Your task to perform on an android device: toggle notifications settings in the gmail app Image 0: 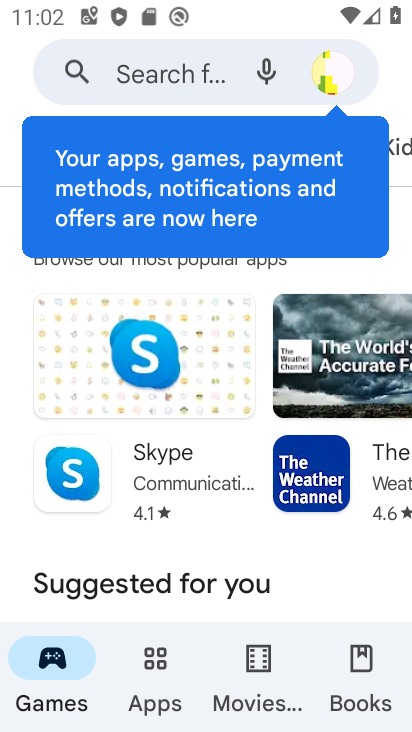
Step 0: press back button
Your task to perform on an android device: toggle notifications settings in the gmail app Image 1: 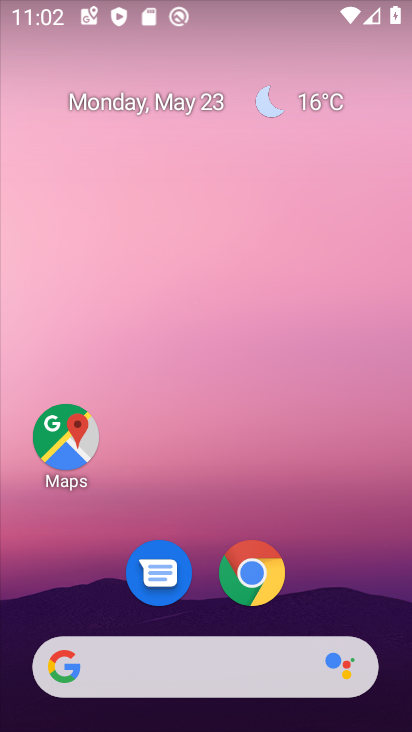
Step 1: drag from (310, 617) to (246, 30)
Your task to perform on an android device: toggle notifications settings in the gmail app Image 2: 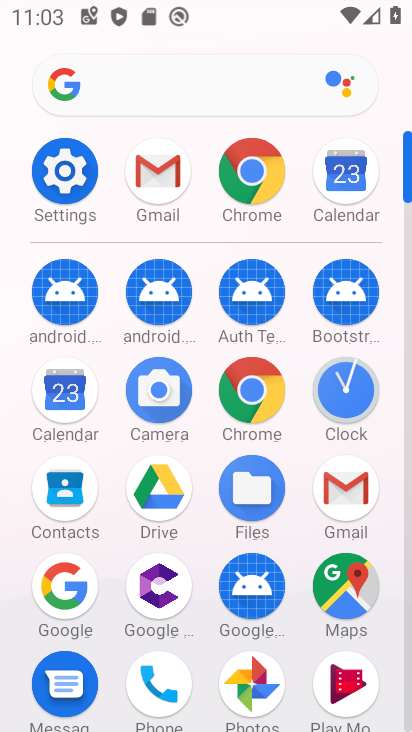
Step 2: click (62, 171)
Your task to perform on an android device: toggle notifications settings in the gmail app Image 3: 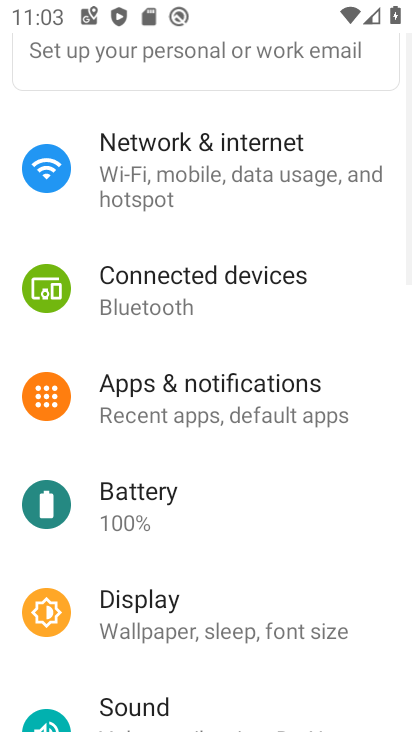
Step 3: press back button
Your task to perform on an android device: toggle notifications settings in the gmail app Image 4: 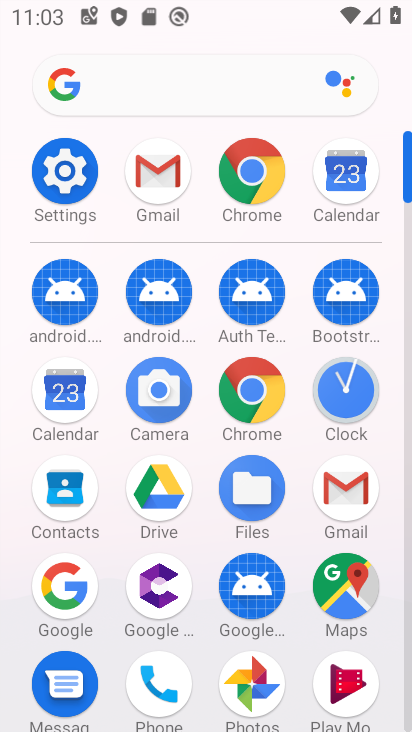
Step 4: press back button
Your task to perform on an android device: toggle notifications settings in the gmail app Image 5: 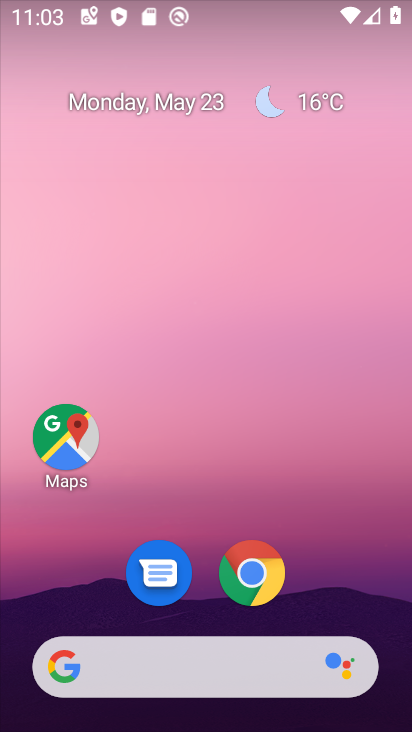
Step 5: drag from (332, 592) to (258, 56)
Your task to perform on an android device: toggle notifications settings in the gmail app Image 6: 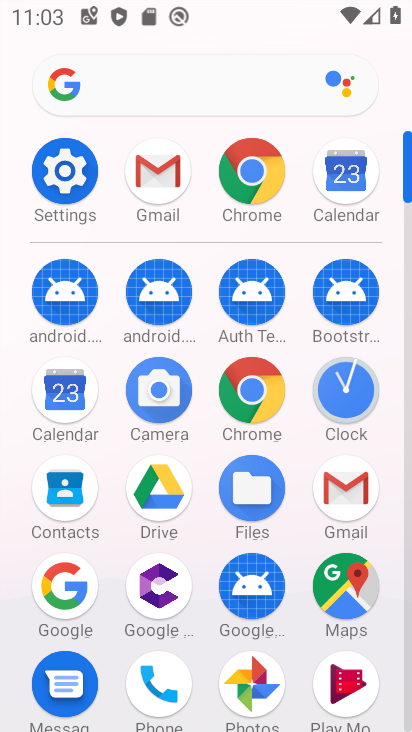
Step 6: drag from (7, 536) to (18, 133)
Your task to perform on an android device: toggle notifications settings in the gmail app Image 7: 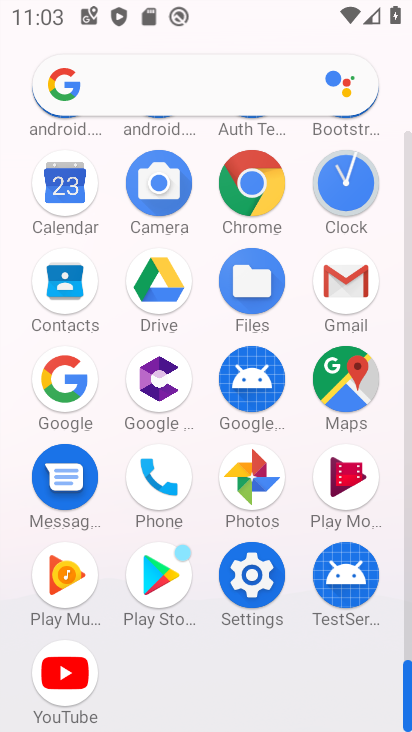
Step 7: drag from (17, 499) to (14, 127)
Your task to perform on an android device: toggle notifications settings in the gmail app Image 8: 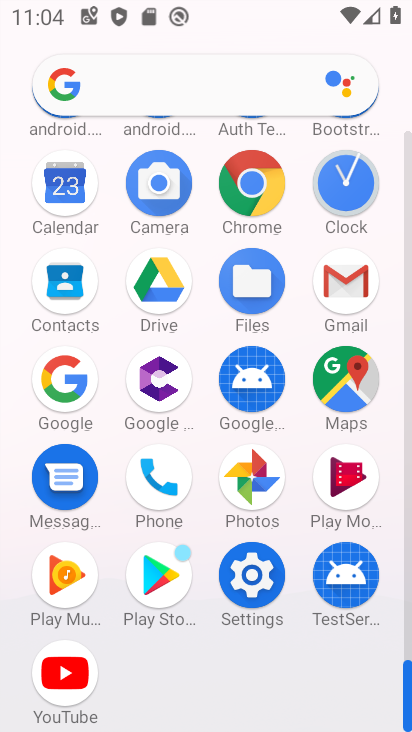
Step 8: click (349, 277)
Your task to perform on an android device: toggle notifications settings in the gmail app Image 9: 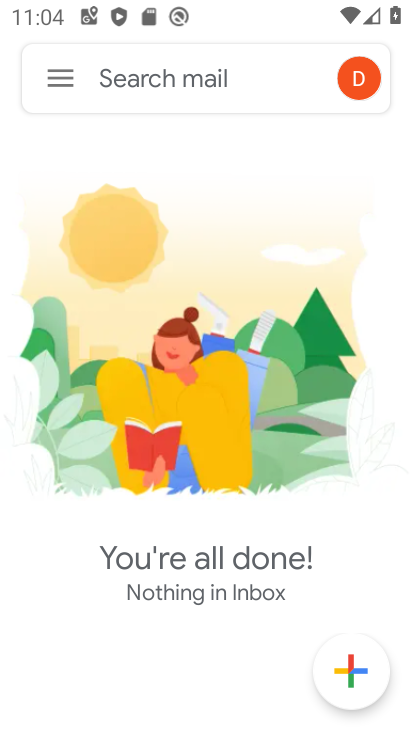
Step 9: click (52, 82)
Your task to perform on an android device: toggle notifications settings in the gmail app Image 10: 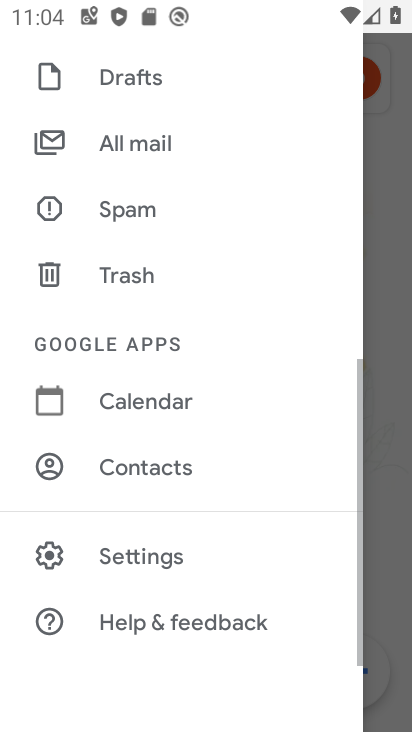
Step 10: click (167, 555)
Your task to perform on an android device: toggle notifications settings in the gmail app Image 11: 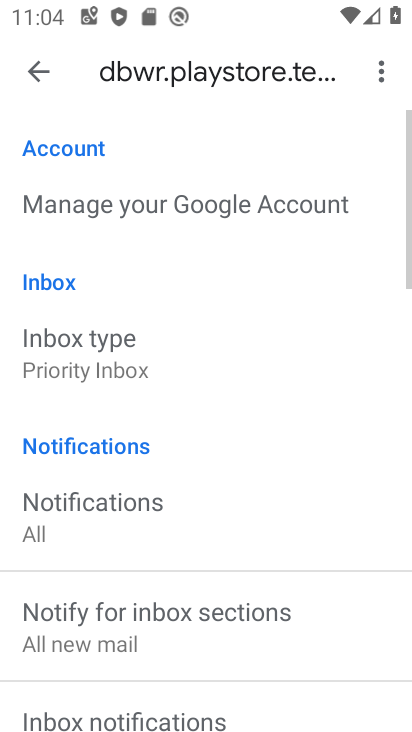
Step 11: drag from (205, 669) to (224, 193)
Your task to perform on an android device: toggle notifications settings in the gmail app Image 12: 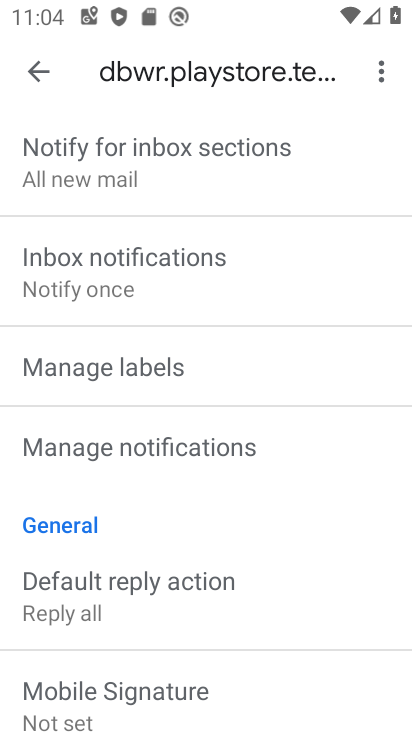
Step 12: drag from (281, 594) to (279, 219)
Your task to perform on an android device: toggle notifications settings in the gmail app Image 13: 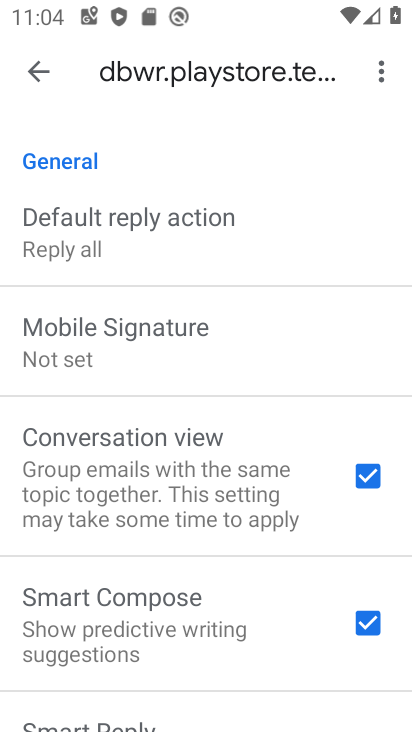
Step 13: drag from (197, 523) to (259, 160)
Your task to perform on an android device: toggle notifications settings in the gmail app Image 14: 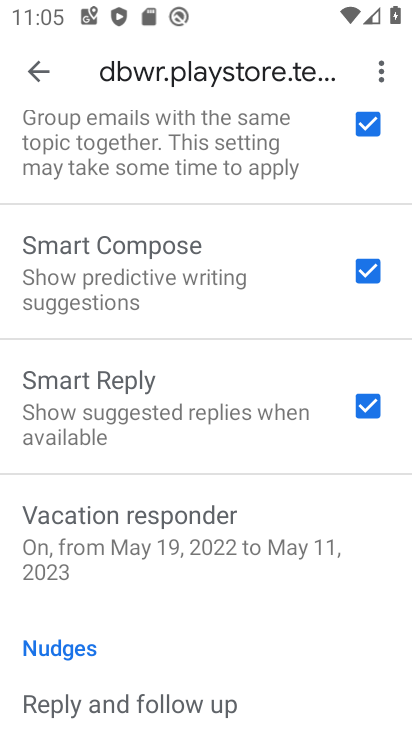
Step 14: drag from (159, 596) to (181, 190)
Your task to perform on an android device: toggle notifications settings in the gmail app Image 15: 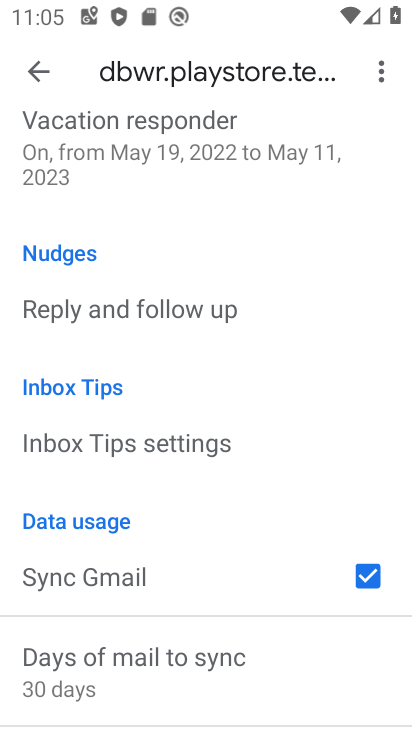
Step 15: drag from (151, 613) to (227, 122)
Your task to perform on an android device: toggle notifications settings in the gmail app Image 16: 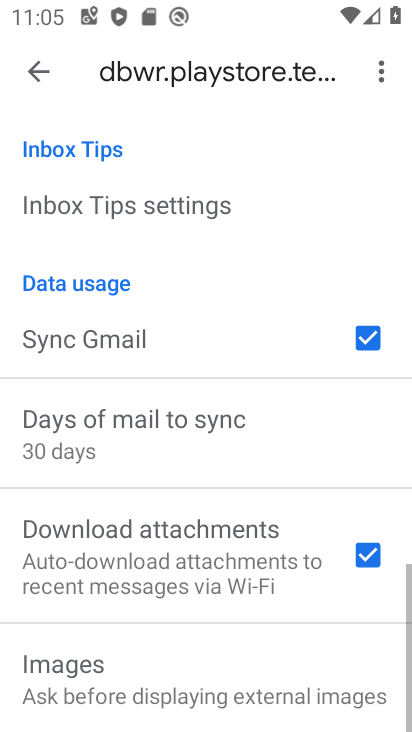
Step 16: drag from (219, 609) to (219, 366)
Your task to perform on an android device: toggle notifications settings in the gmail app Image 17: 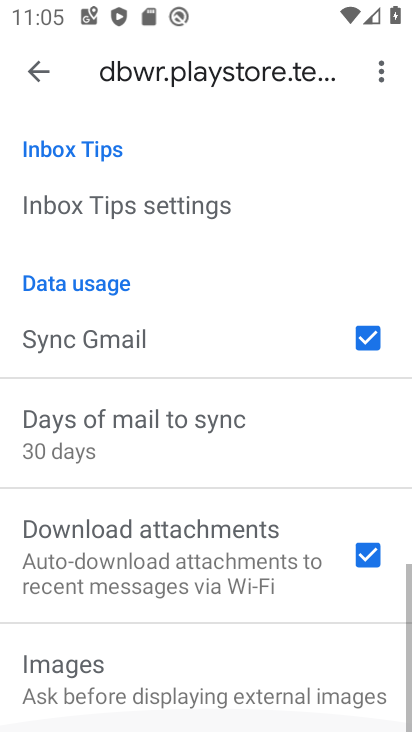
Step 17: drag from (244, 183) to (267, 644)
Your task to perform on an android device: toggle notifications settings in the gmail app Image 18: 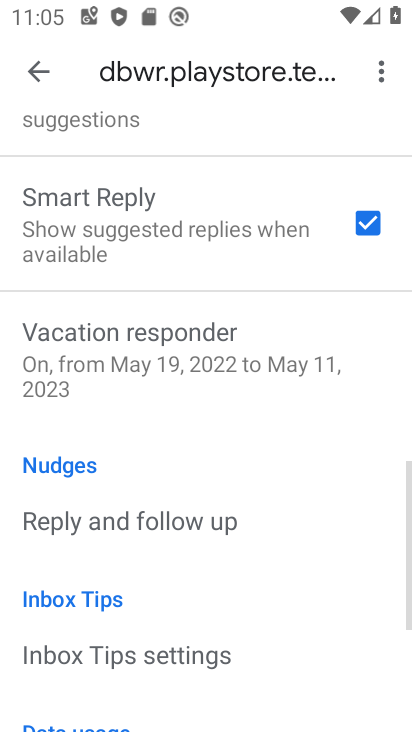
Step 18: drag from (245, 197) to (248, 607)
Your task to perform on an android device: toggle notifications settings in the gmail app Image 19: 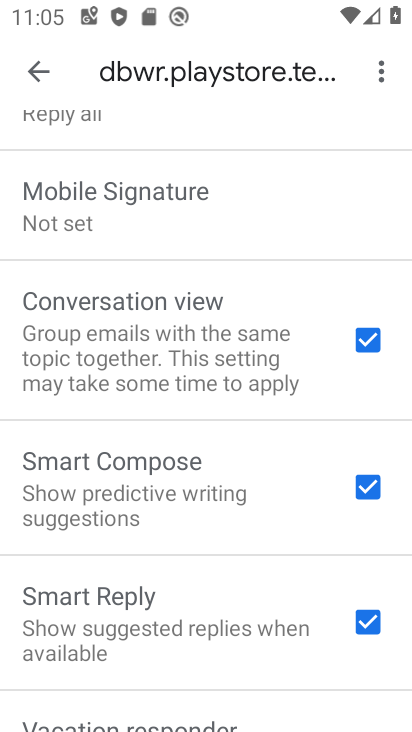
Step 19: drag from (175, 241) to (205, 702)
Your task to perform on an android device: toggle notifications settings in the gmail app Image 20: 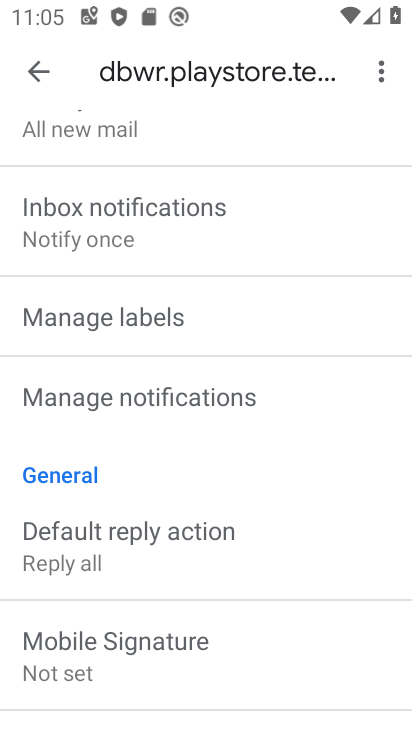
Step 20: click (213, 387)
Your task to perform on an android device: toggle notifications settings in the gmail app Image 21: 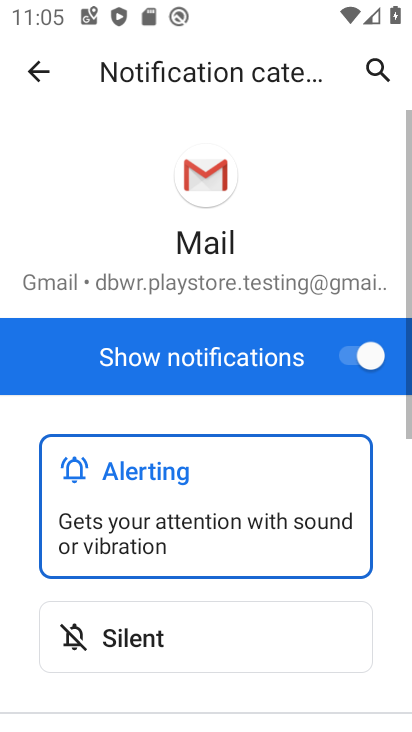
Step 21: click (361, 363)
Your task to perform on an android device: toggle notifications settings in the gmail app Image 22: 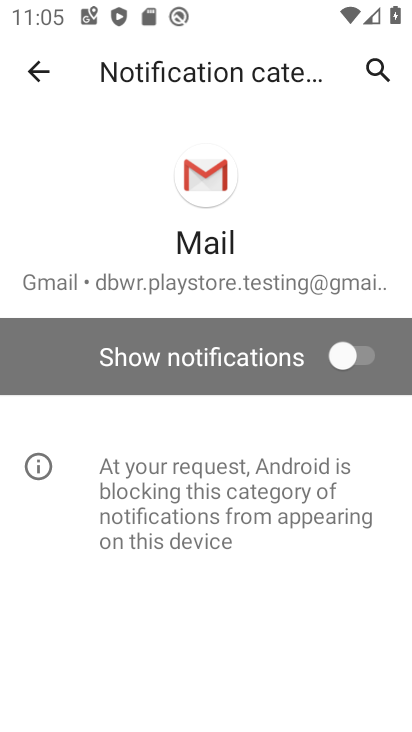
Step 22: task complete